Your task to perform on an android device: Open the stopwatch Image 0: 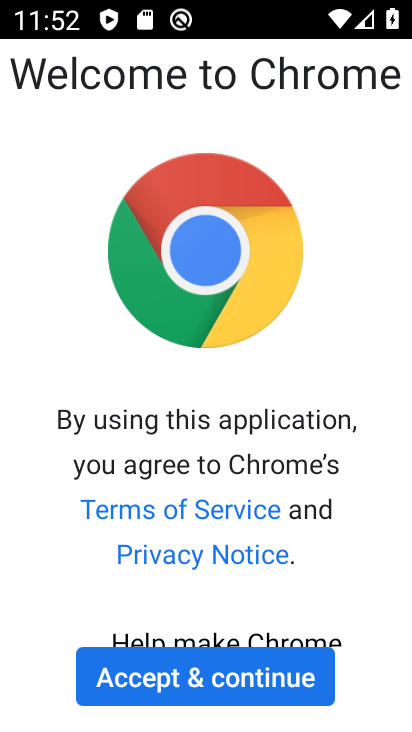
Step 0: drag from (202, 632) to (232, 306)
Your task to perform on an android device: Open the stopwatch Image 1: 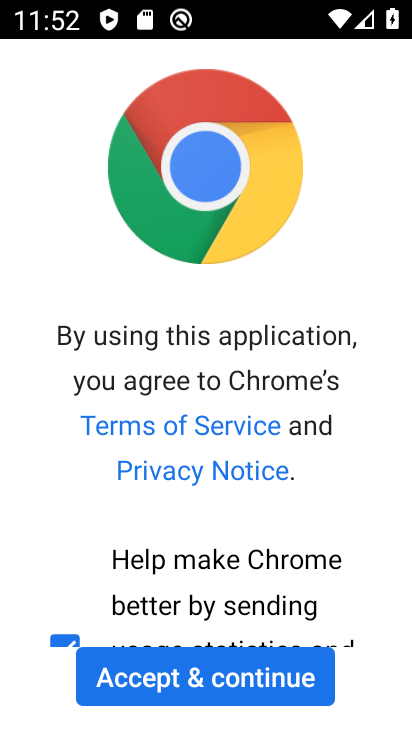
Step 1: press home button
Your task to perform on an android device: Open the stopwatch Image 2: 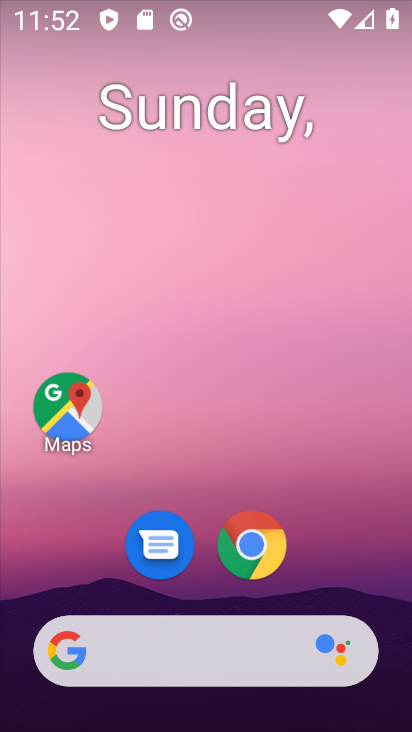
Step 2: drag from (205, 592) to (297, 136)
Your task to perform on an android device: Open the stopwatch Image 3: 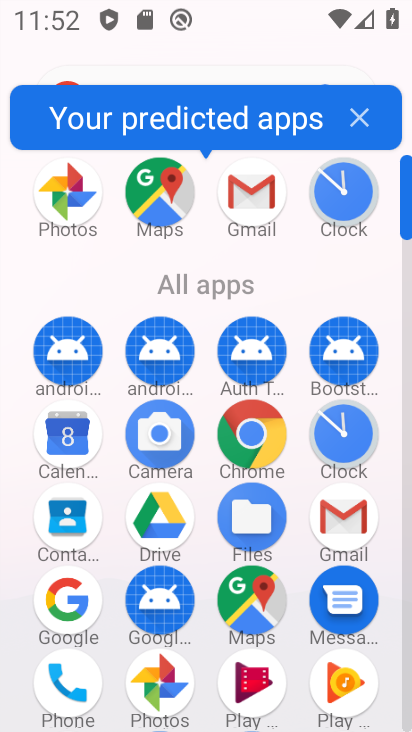
Step 3: drag from (204, 617) to (180, 257)
Your task to perform on an android device: Open the stopwatch Image 4: 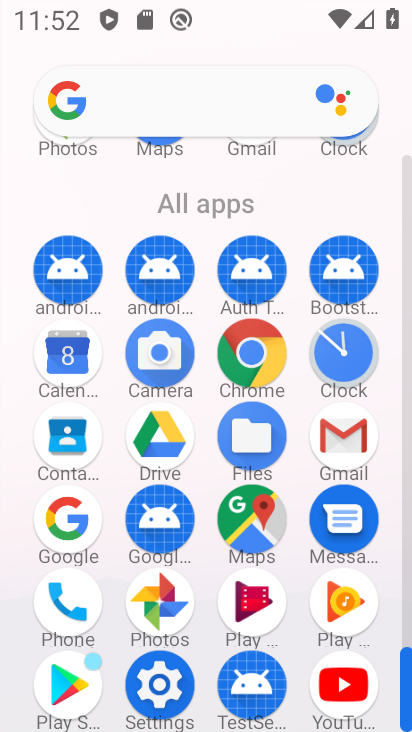
Step 4: drag from (205, 656) to (232, 151)
Your task to perform on an android device: Open the stopwatch Image 5: 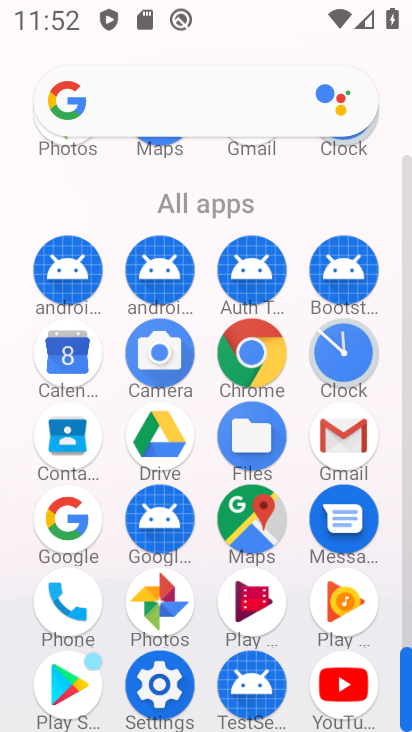
Step 5: click (362, 340)
Your task to perform on an android device: Open the stopwatch Image 6: 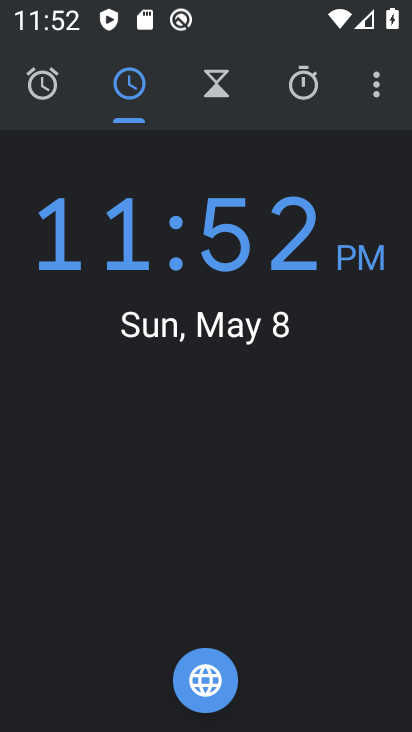
Step 6: click (227, 459)
Your task to perform on an android device: Open the stopwatch Image 7: 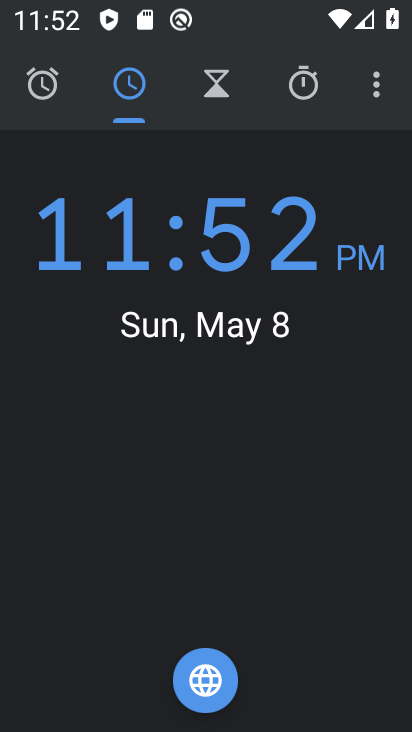
Step 7: click (304, 76)
Your task to perform on an android device: Open the stopwatch Image 8: 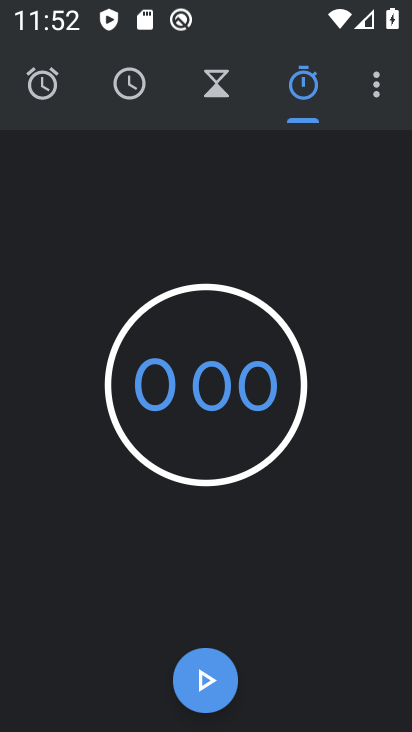
Step 8: click (205, 689)
Your task to perform on an android device: Open the stopwatch Image 9: 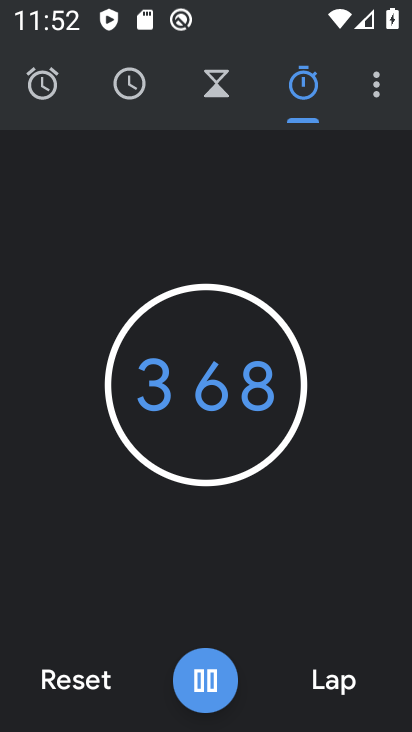
Step 9: task complete